Your task to perform on an android device: change the clock display to digital Image 0: 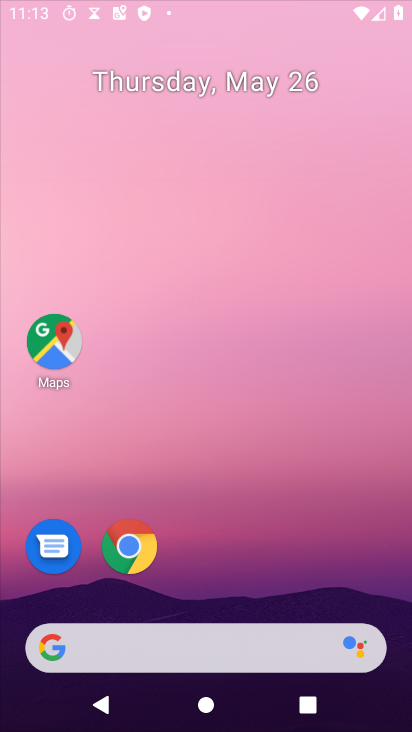
Step 0: drag from (326, 365) to (326, 97)
Your task to perform on an android device: change the clock display to digital Image 1: 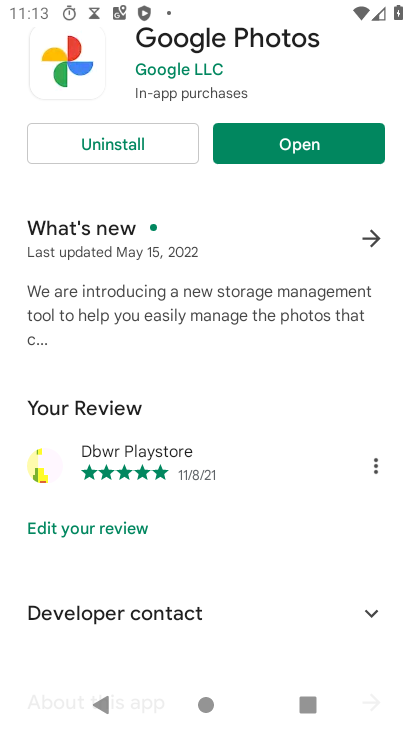
Step 1: press home button
Your task to perform on an android device: change the clock display to digital Image 2: 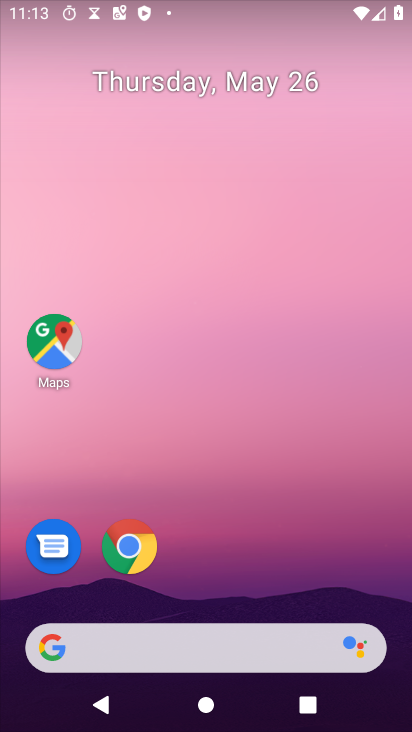
Step 2: drag from (312, 565) to (344, 167)
Your task to perform on an android device: change the clock display to digital Image 3: 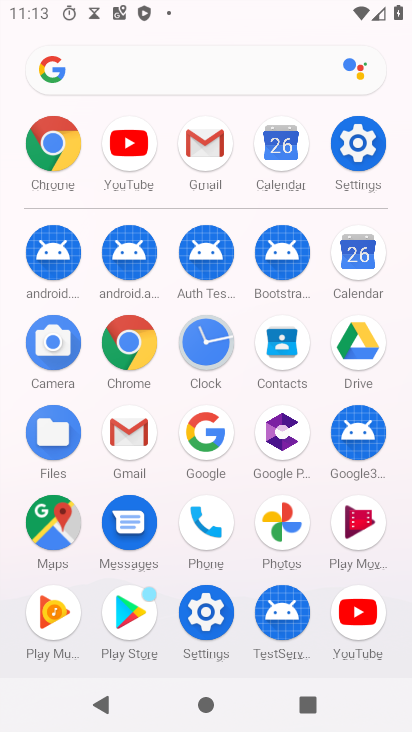
Step 3: click (199, 329)
Your task to perform on an android device: change the clock display to digital Image 4: 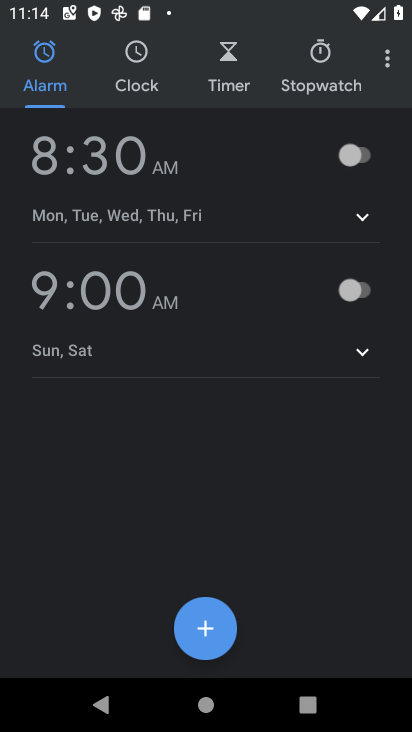
Step 4: drag from (389, 65) to (237, 114)
Your task to perform on an android device: change the clock display to digital Image 5: 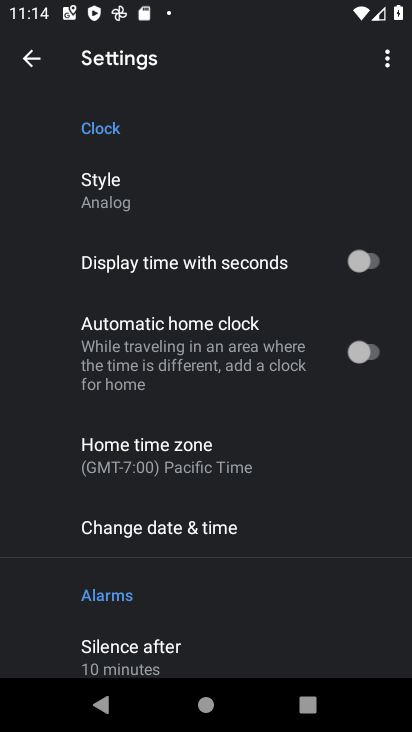
Step 5: click (135, 193)
Your task to perform on an android device: change the clock display to digital Image 6: 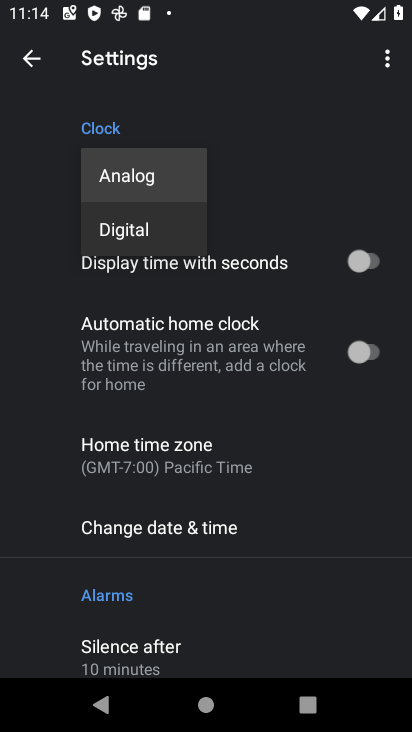
Step 6: click (137, 233)
Your task to perform on an android device: change the clock display to digital Image 7: 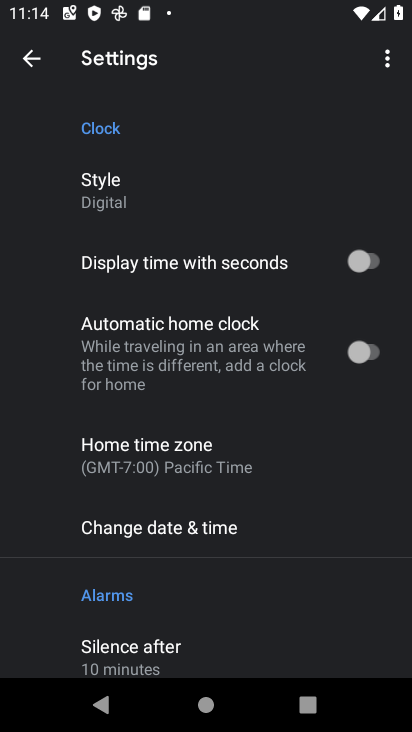
Step 7: task complete